Your task to perform on an android device: allow notifications from all sites in the chrome app Image 0: 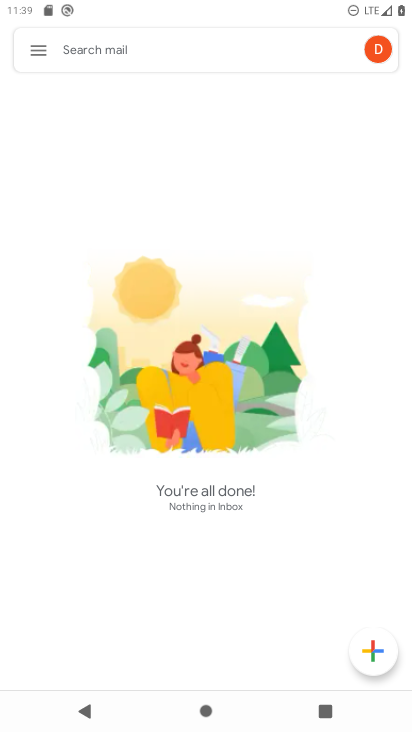
Step 0: press home button
Your task to perform on an android device: allow notifications from all sites in the chrome app Image 1: 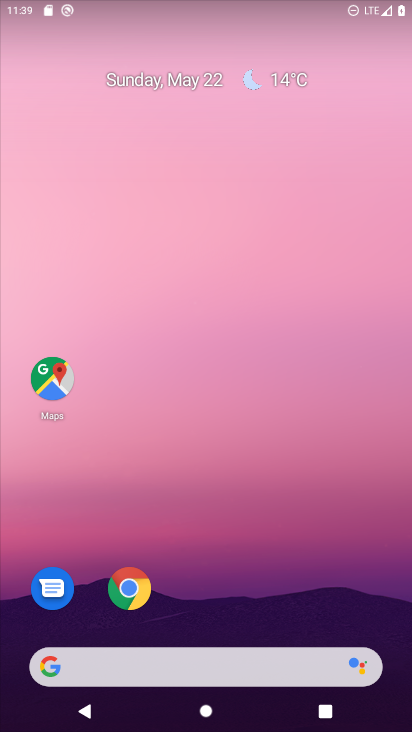
Step 1: click (139, 595)
Your task to perform on an android device: allow notifications from all sites in the chrome app Image 2: 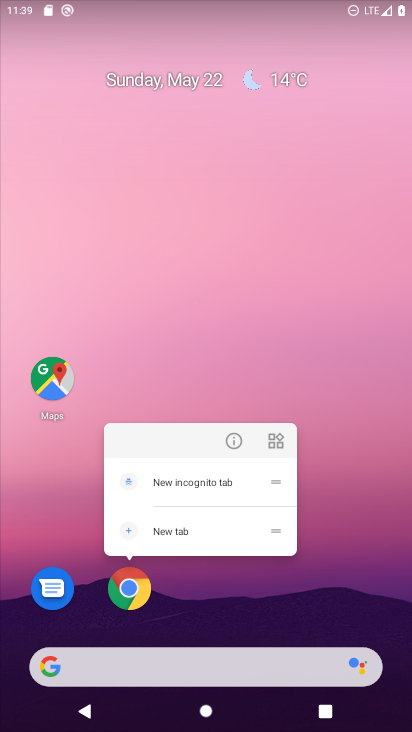
Step 2: click (132, 589)
Your task to perform on an android device: allow notifications from all sites in the chrome app Image 3: 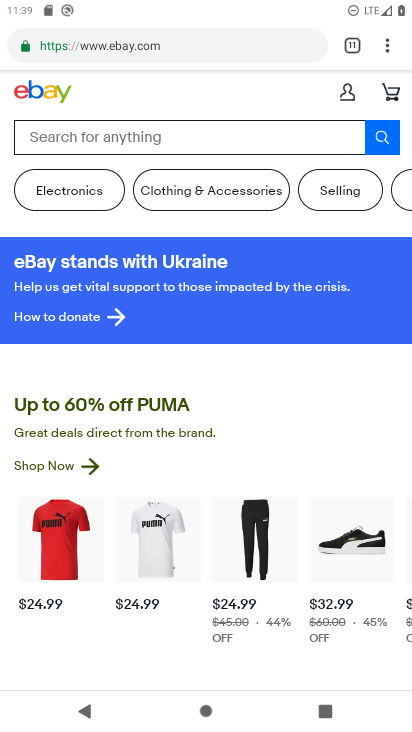
Step 3: drag from (392, 47) to (254, 536)
Your task to perform on an android device: allow notifications from all sites in the chrome app Image 4: 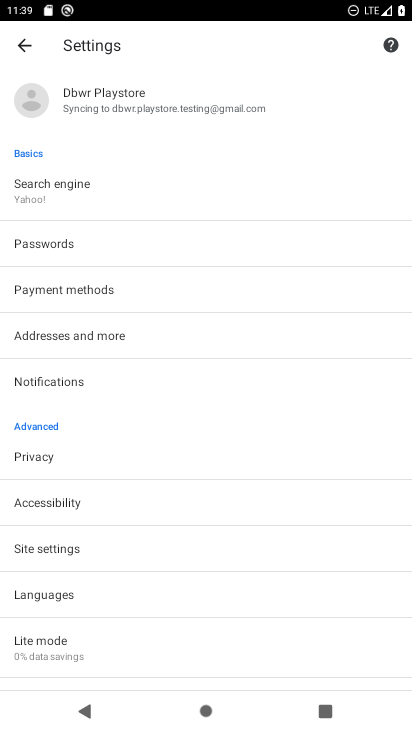
Step 4: click (107, 554)
Your task to perform on an android device: allow notifications from all sites in the chrome app Image 5: 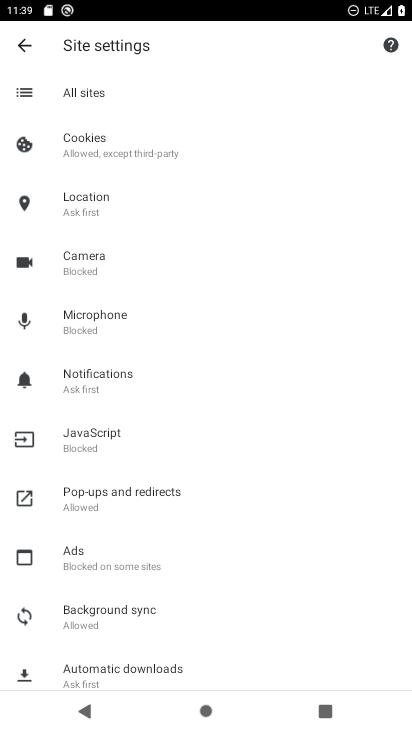
Step 5: click (119, 93)
Your task to perform on an android device: allow notifications from all sites in the chrome app Image 6: 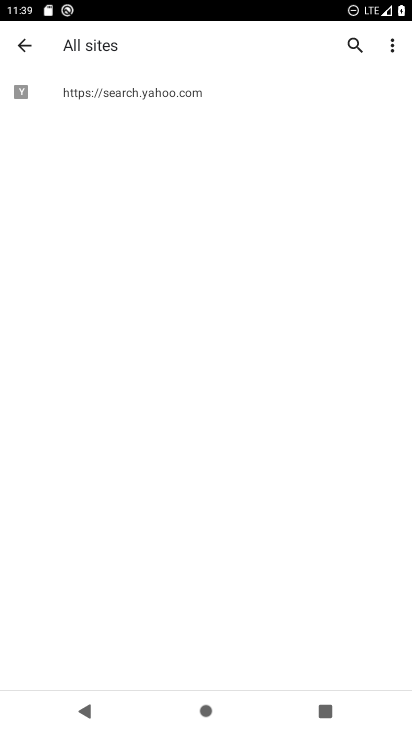
Step 6: click (211, 100)
Your task to perform on an android device: allow notifications from all sites in the chrome app Image 7: 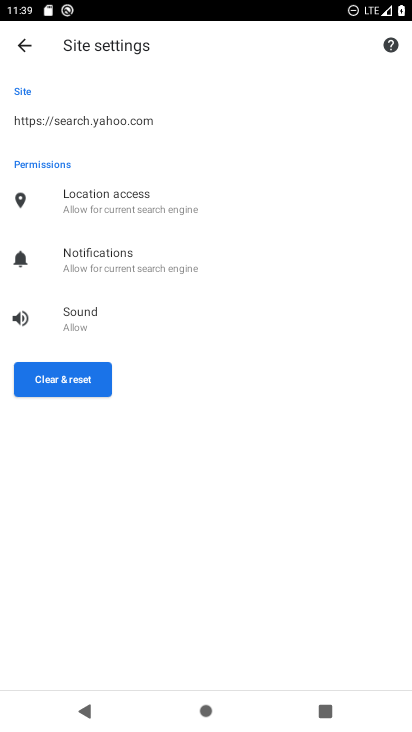
Step 7: click (143, 255)
Your task to perform on an android device: allow notifications from all sites in the chrome app Image 8: 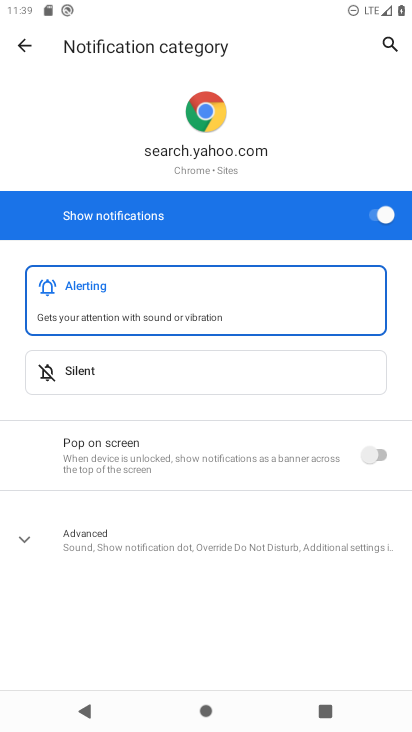
Step 8: task complete